Your task to perform on an android device: open a new tab in the chrome app Image 0: 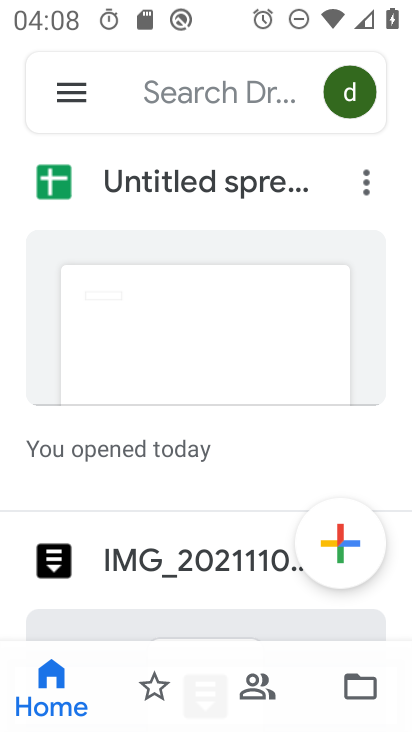
Step 0: press home button
Your task to perform on an android device: open a new tab in the chrome app Image 1: 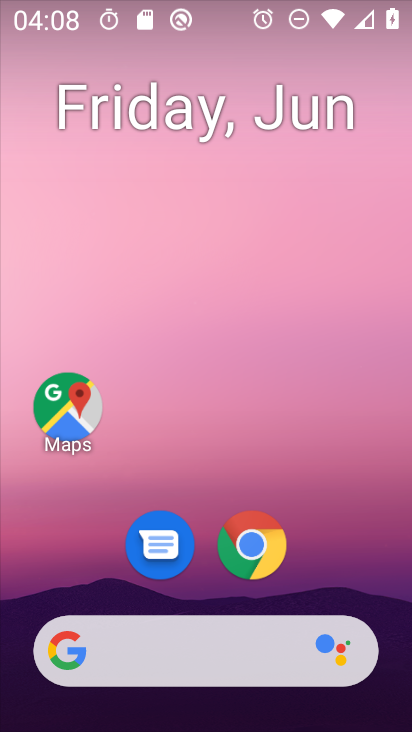
Step 1: click (251, 544)
Your task to perform on an android device: open a new tab in the chrome app Image 2: 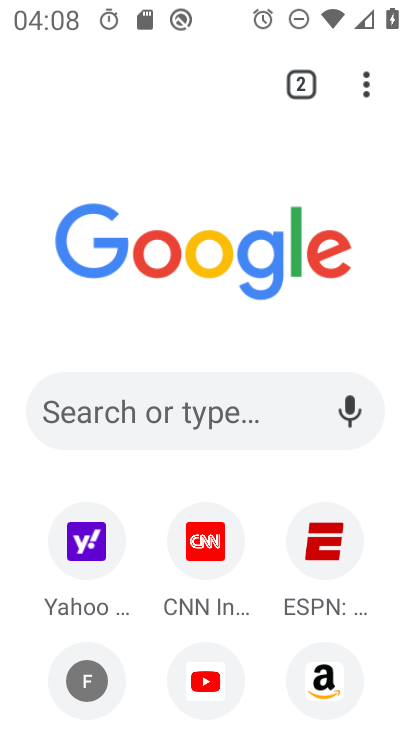
Step 2: click (359, 87)
Your task to perform on an android device: open a new tab in the chrome app Image 3: 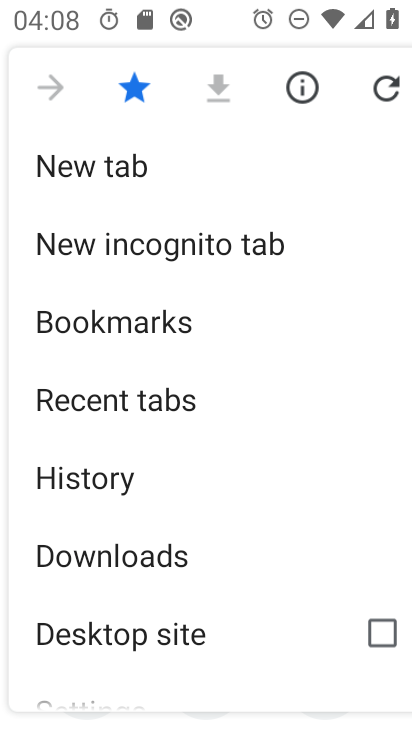
Step 3: click (194, 159)
Your task to perform on an android device: open a new tab in the chrome app Image 4: 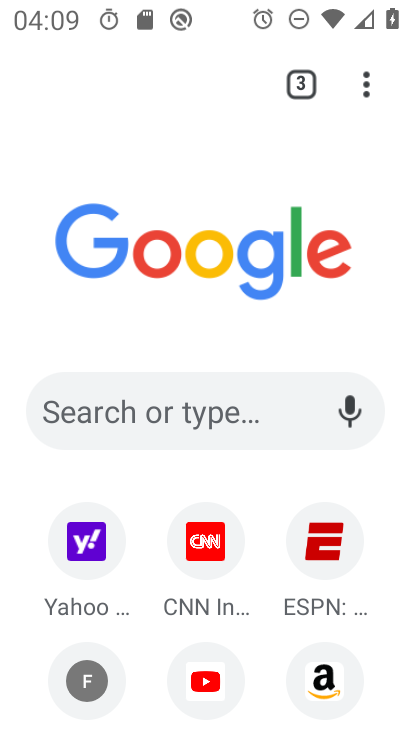
Step 4: task complete